Your task to perform on an android device: Go to notification settings Image 0: 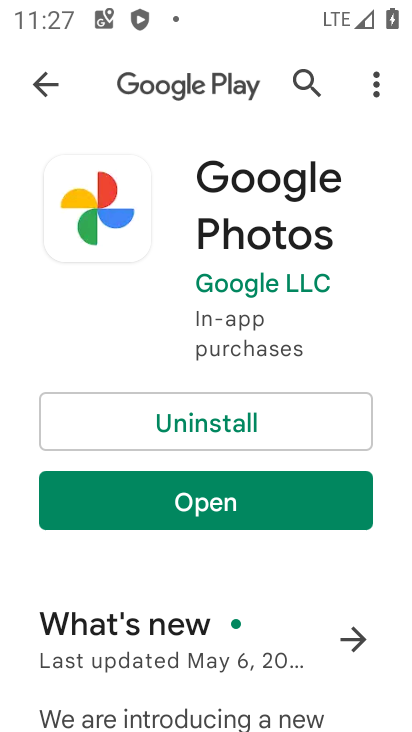
Step 0: press home button
Your task to perform on an android device: Go to notification settings Image 1: 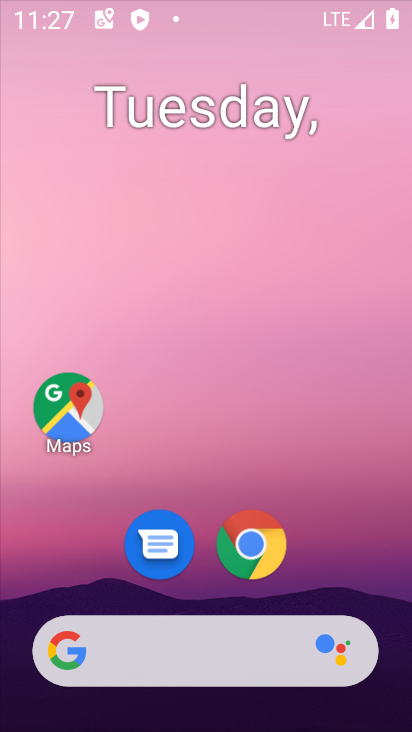
Step 1: drag from (389, 601) to (288, 88)
Your task to perform on an android device: Go to notification settings Image 2: 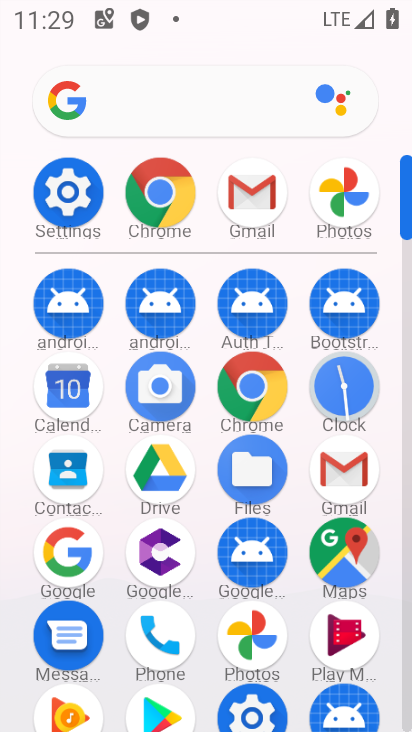
Step 2: click (66, 193)
Your task to perform on an android device: Go to notification settings Image 3: 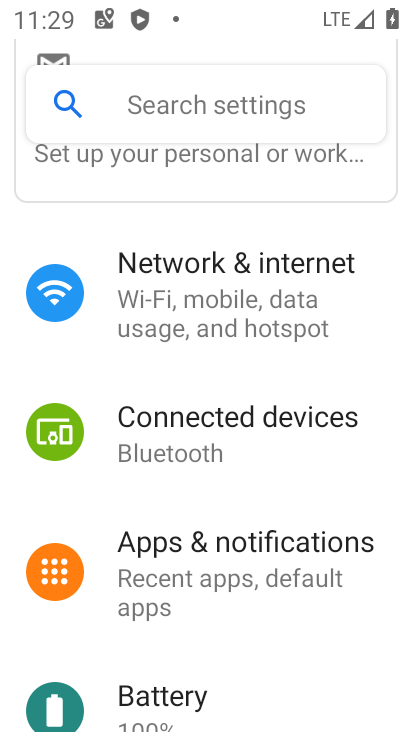
Step 3: click (267, 556)
Your task to perform on an android device: Go to notification settings Image 4: 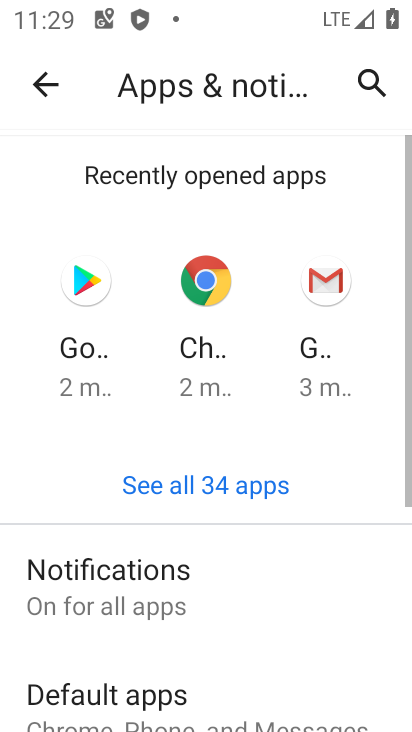
Step 4: click (226, 578)
Your task to perform on an android device: Go to notification settings Image 5: 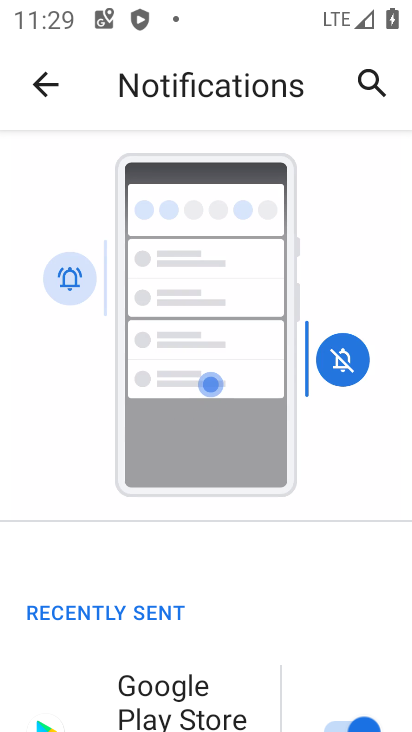
Step 5: task complete